Your task to perform on an android device: add a label to a message in the gmail app Image 0: 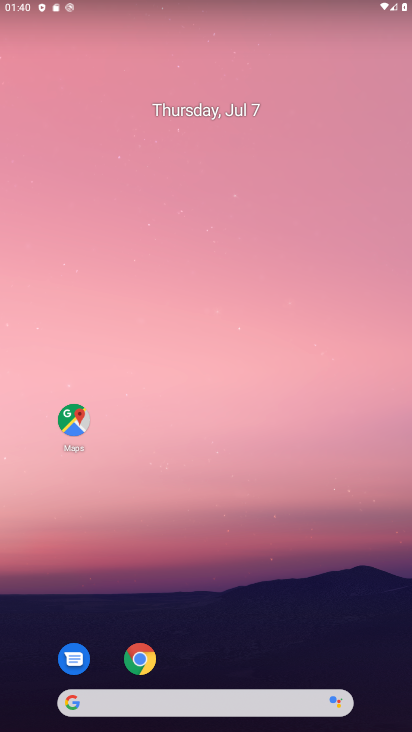
Step 0: drag from (198, 656) to (227, 191)
Your task to perform on an android device: add a label to a message in the gmail app Image 1: 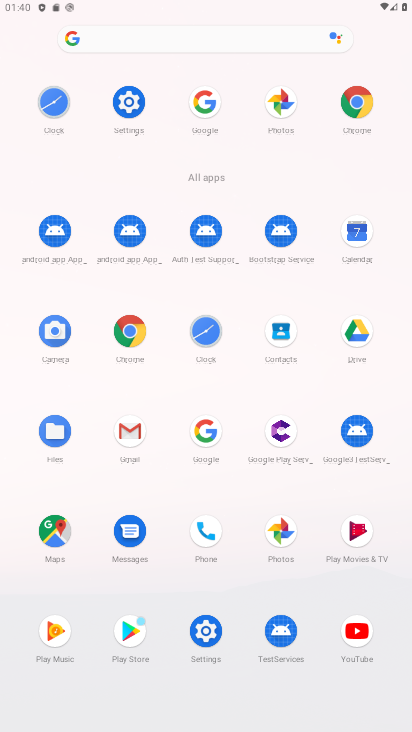
Step 1: click (127, 434)
Your task to perform on an android device: add a label to a message in the gmail app Image 2: 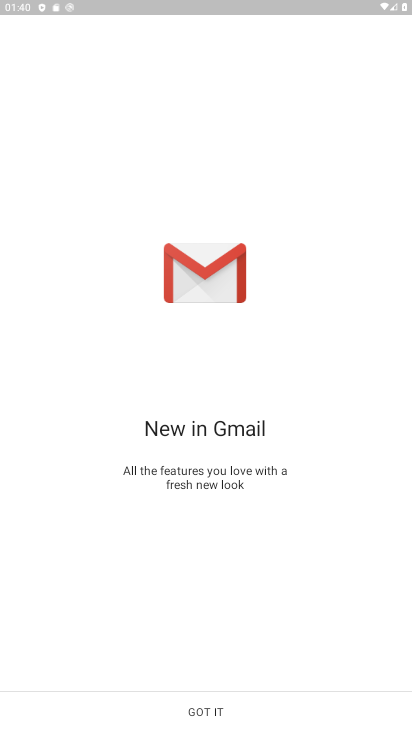
Step 2: click (198, 703)
Your task to perform on an android device: add a label to a message in the gmail app Image 3: 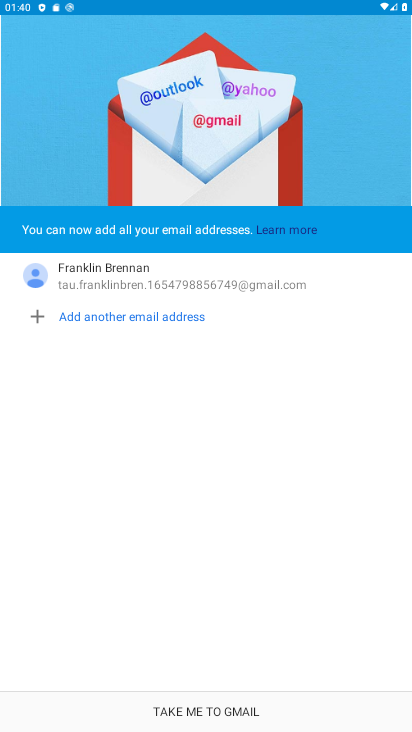
Step 3: click (197, 702)
Your task to perform on an android device: add a label to a message in the gmail app Image 4: 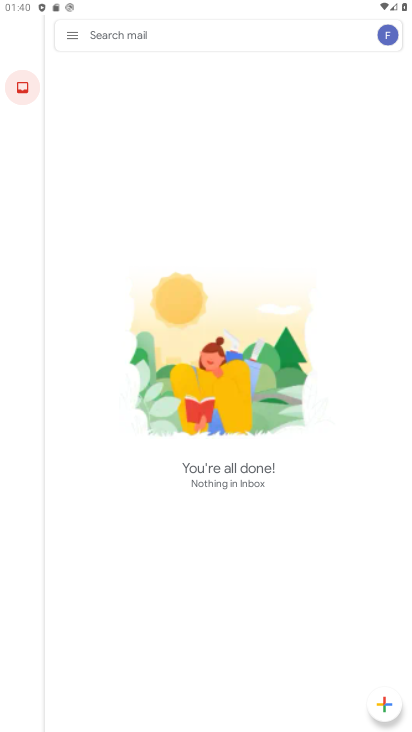
Step 4: task complete